Your task to perform on an android device: turn on translation in the chrome app Image 0: 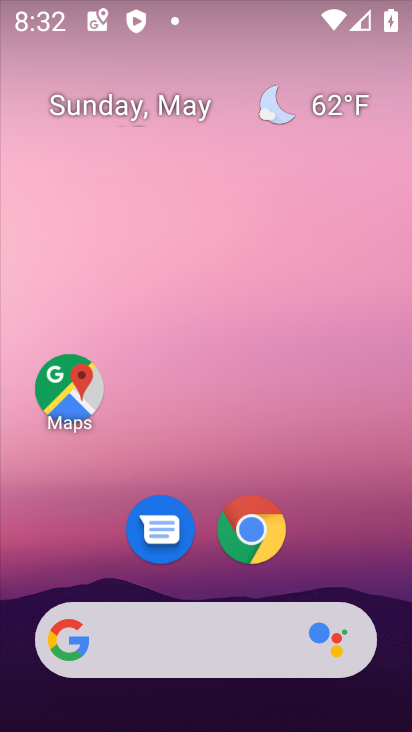
Step 0: drag from (352, 569) to (307, 118)
Your task to perform on an android device: turn on translation in the chrome app Image 1: 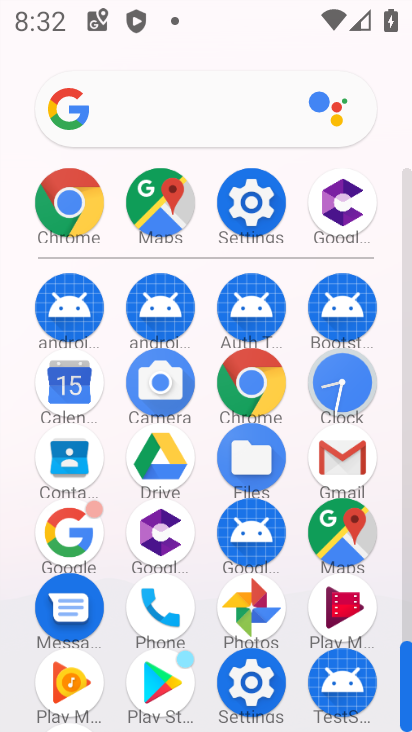
Step 1: drag from (289, 642) to (292, 270)
Your task to perform on an android device: turn on translation in the chrome app Image 2: 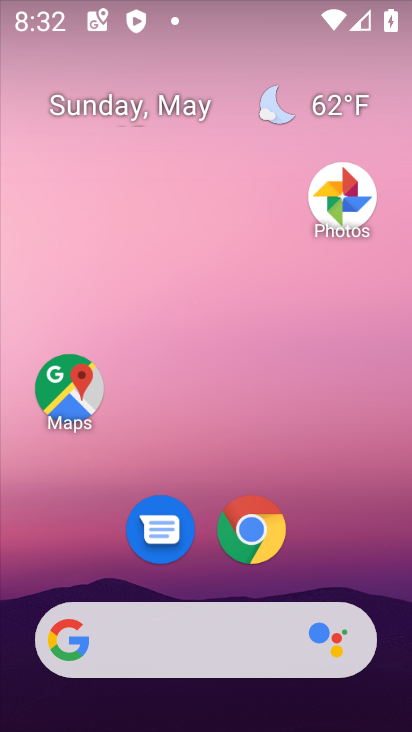
Step 2: drag from (347, 511) to (245, 10)
Your task to perform on an android device: turn on translation in the chrome app Image 3: 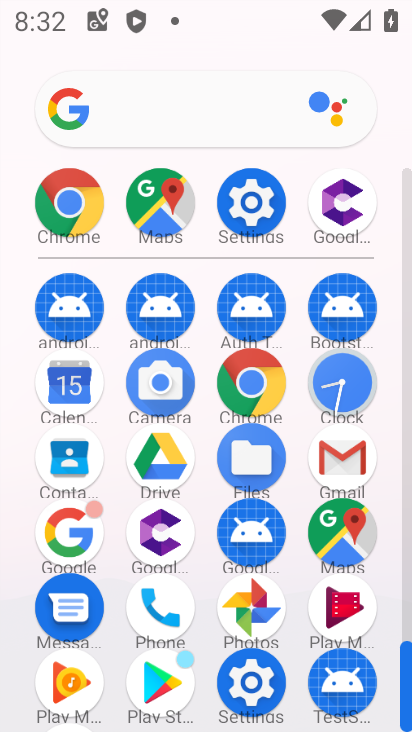
Step 3: click (260, 376)
Your task to perform on an android device: turn on translation in the chrome app Image 4: 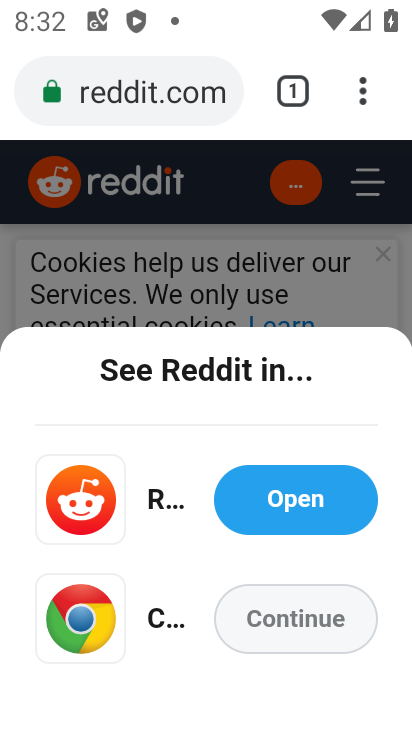
Step 4: drag from (360, 106) to (180, 566)
Your task to perform on an android device: turn on translation in the chrome app Image 5: 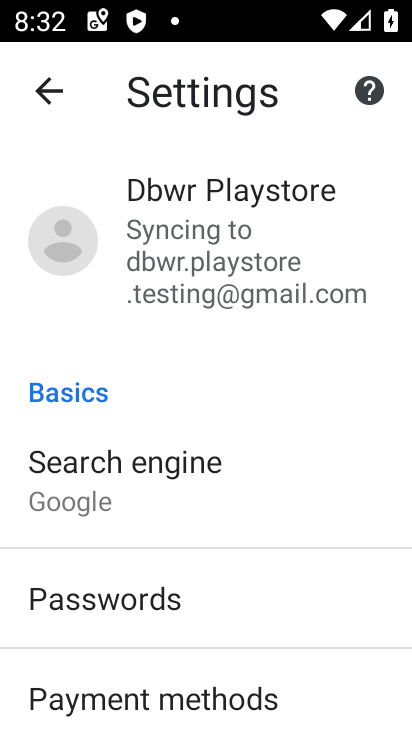
Step 5: drag from (349, 675) to (271, 270)
Your task to perform on an android device: turn on translation in the chrome app Image 6: 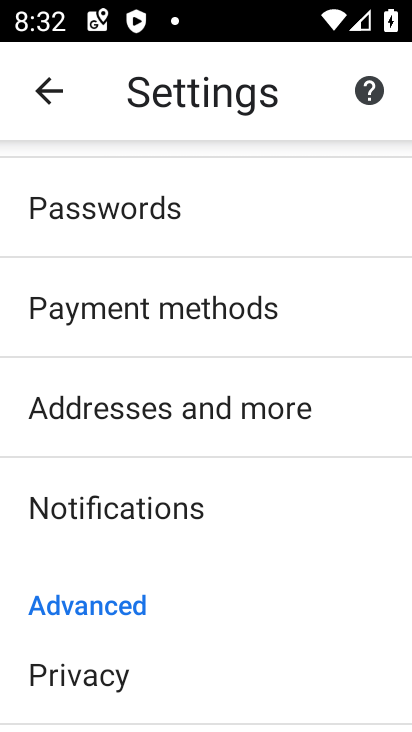
Step 6: drag from (233, 645) to (244, 293)
Your task to perform on an android device: turn on translation in the chrome app Image 7: 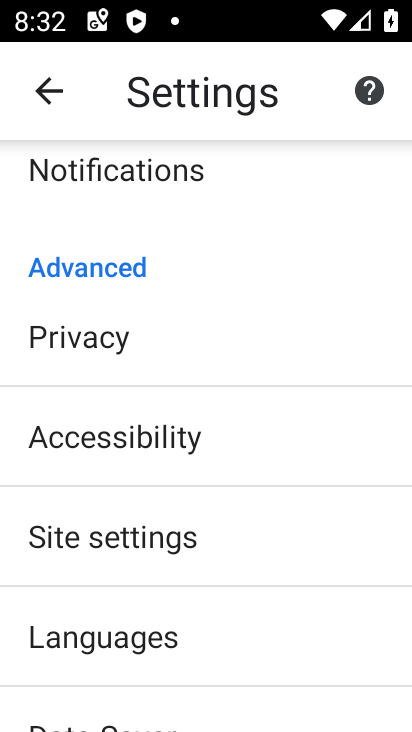
Step 7: drag from (248, 680) to (255, 439)
Your task to perform on an android device: turn on translation in the chrome app Image 8: 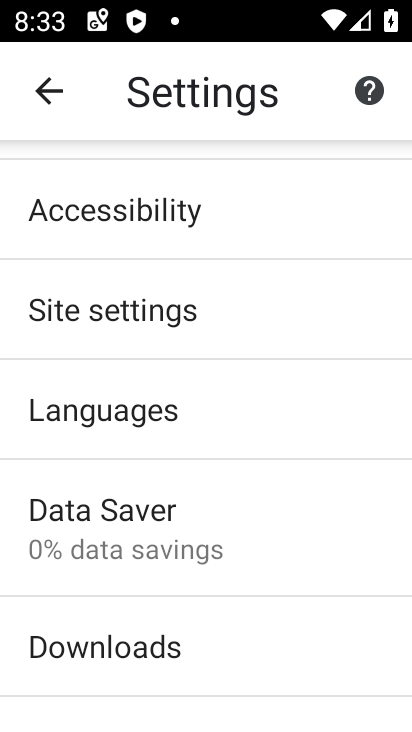
Step 8: click (157, 429)
Your task to perform on an android device: turn on translation in the chrome app Image 9: 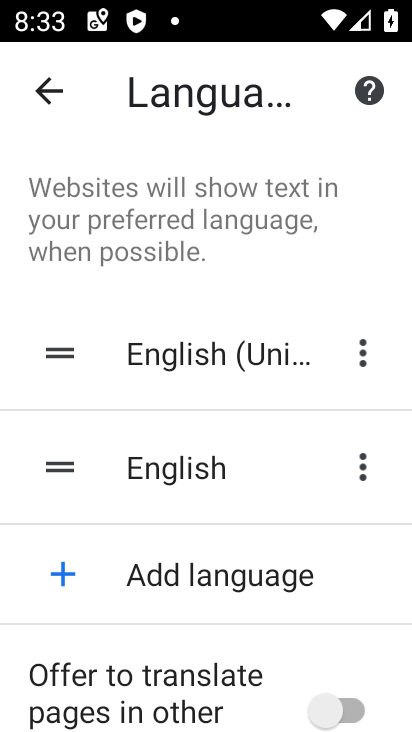
Step 9: drag from (263, 712) to (282, 359)
Your task to perform on an android device: turn on translation in the chrome app Image 10: 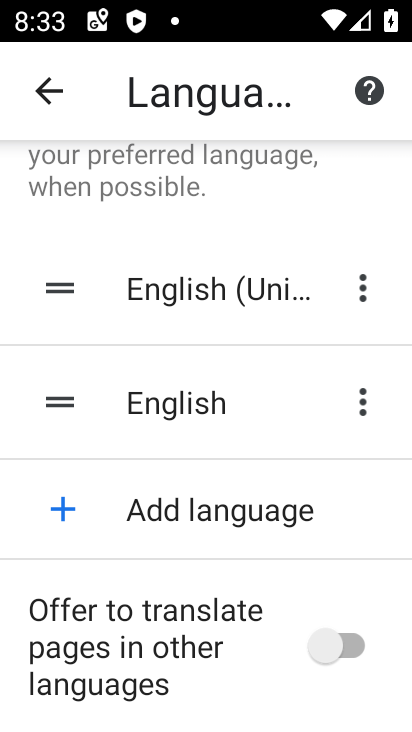
Step 10: click (361, 642)
Your task to perform on an android device: turn on translation in the chrome app Image 11: 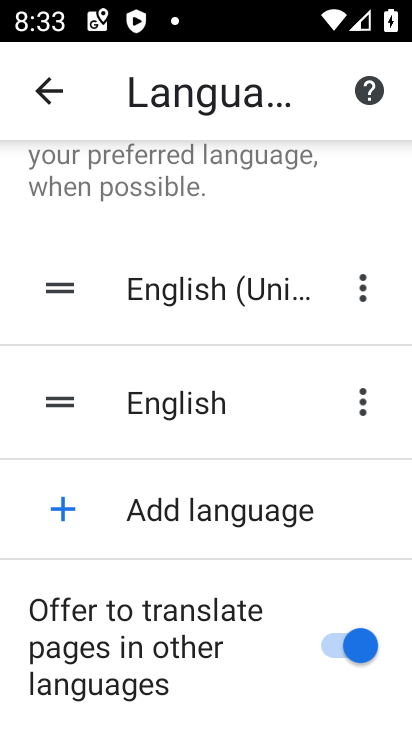
Step 11: task complete